Your task to perform on an android device: manage bookmarks in the chrome app Image 0: 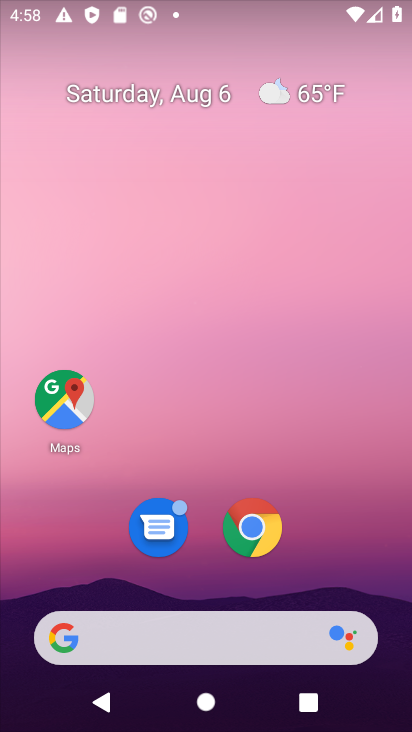
Step 0: click (270, 519)
Your task to perform on an android device: manage bookmarks in the chrome app Image 1: 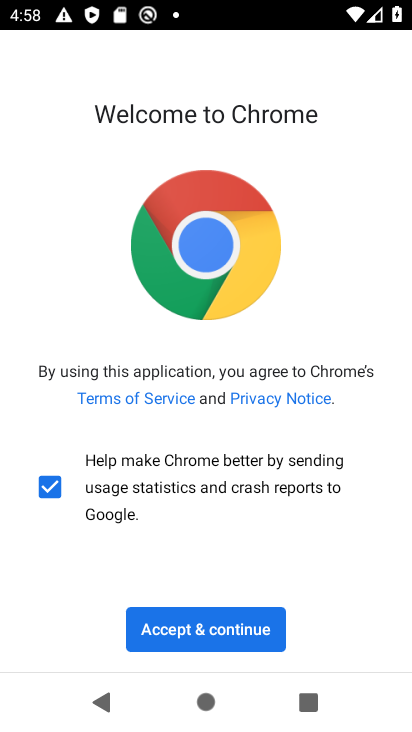
Step 1: click (260, 616)
Your task to perform on an android device: manage bookmarks in the chrome app Image 2: 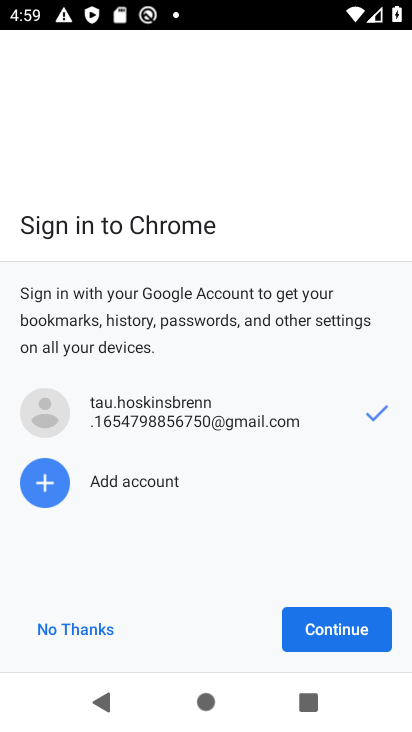
Step 2: click (299, 631)
Your task to perform on an android device: manage bookmarks in the chrome app Image 3: 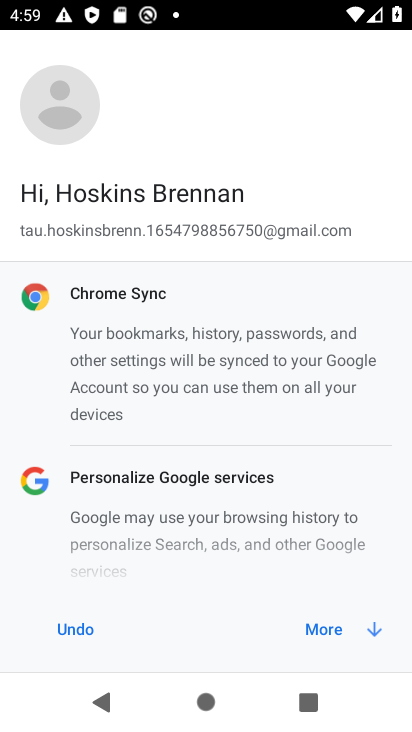
Step 3: click (308, 637)
Your task to perform on an android device: manage bookmarks in the chrome app Image 4: 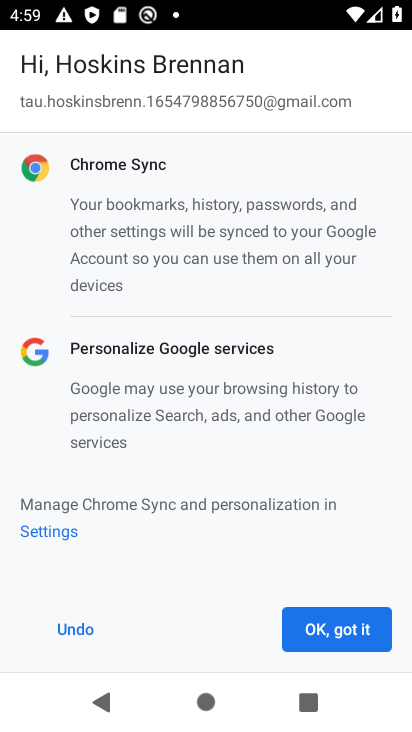
Step 4: click (308, 637)
Your task to perform on an android device: manage bookmarks in the chrome app Image 5: 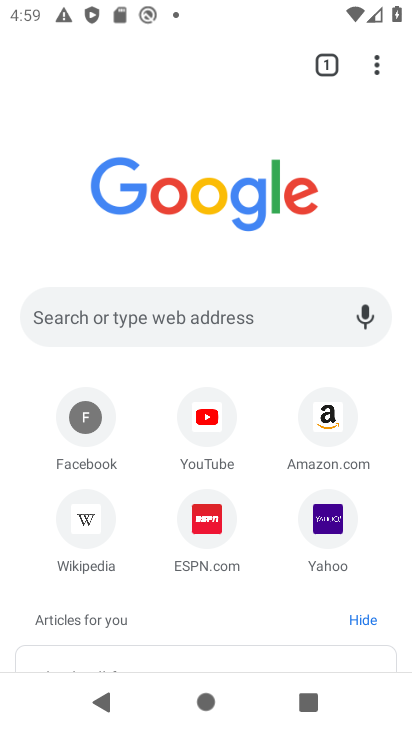
Step 5: drag from (373, 66) to (153, 249)
Your task to perform on an android device: manage bookmarks in the chrome app Image 6: 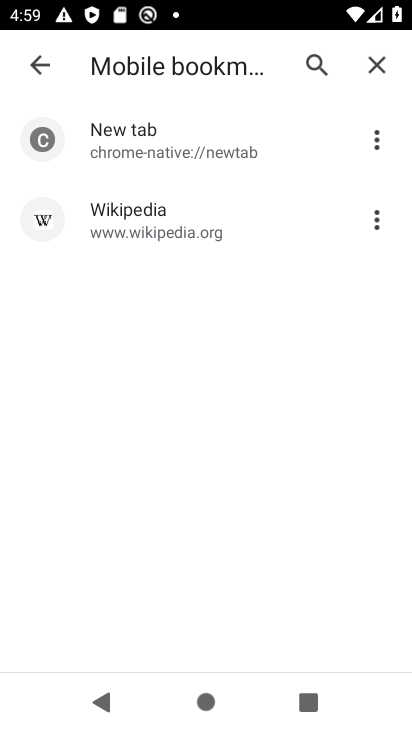
Step 6: click (365, 221)
Your task to perform on an android device: manage bookmarks in the chrome app Image 7: 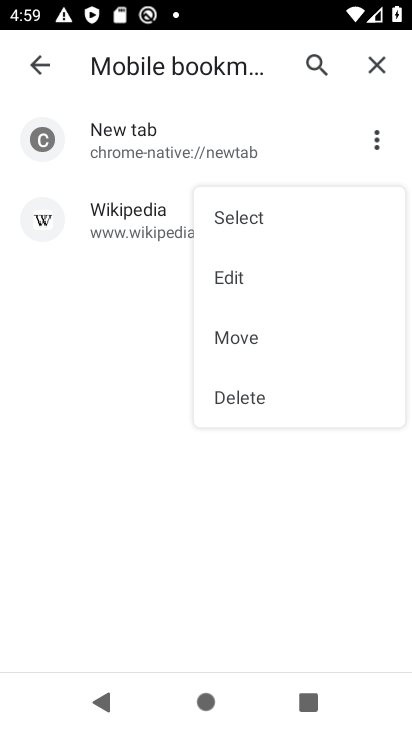
Step 7: click (244, 395)
Your task to perform on an android device: manage bookmarks in the chrome app Image 8: 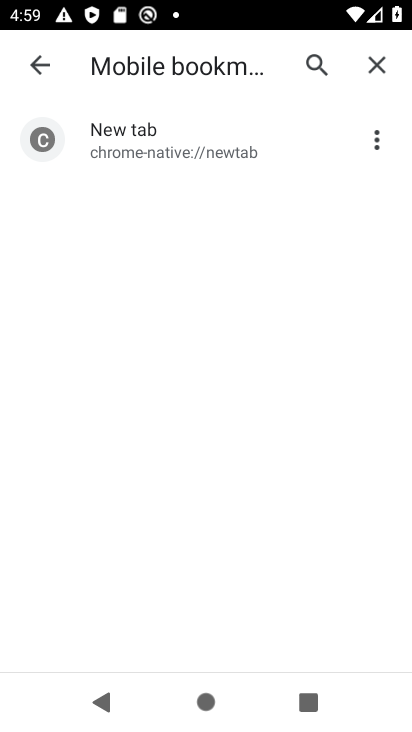
Step 8: task complete